Your task to perform on an android device: turn on translation in the chrome app Image 0: 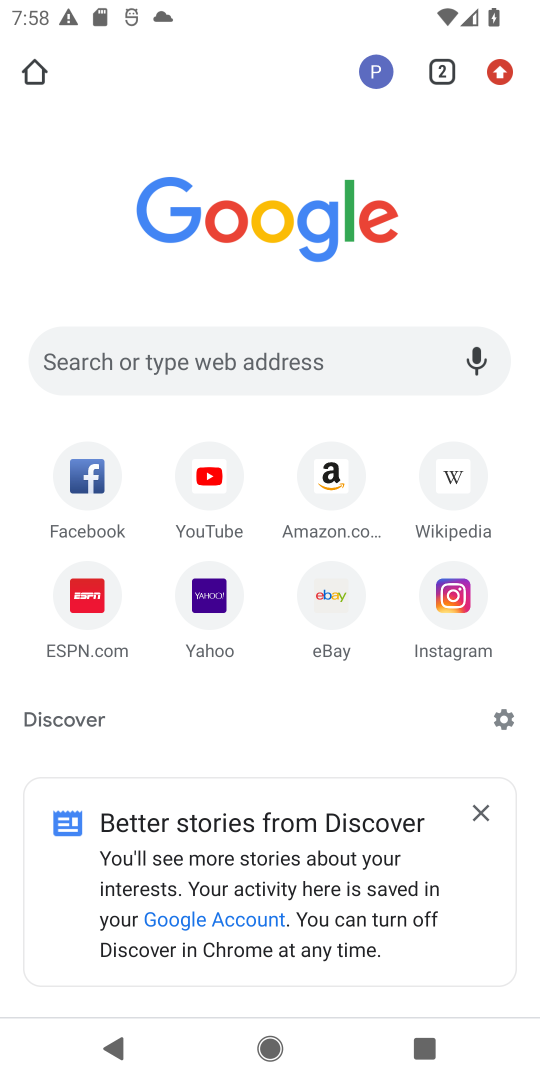
Step 0: click (499, 68)
Your task to perform on an android device: turn on translation in the chrome app Image 1: 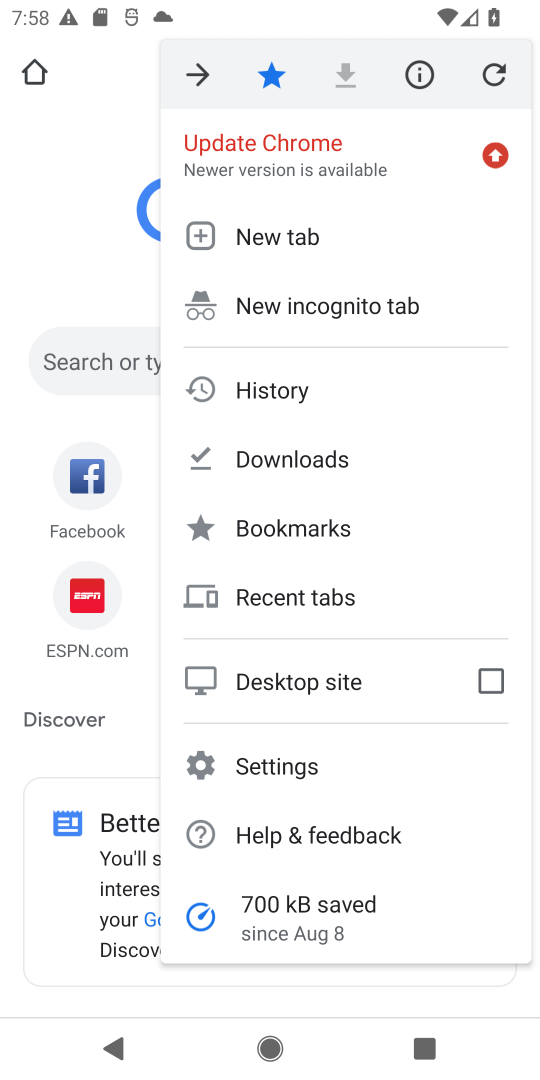
Step 1: click (295, 764)
Your task to perform on an android device: turn on translation in the chrome app Image 2: 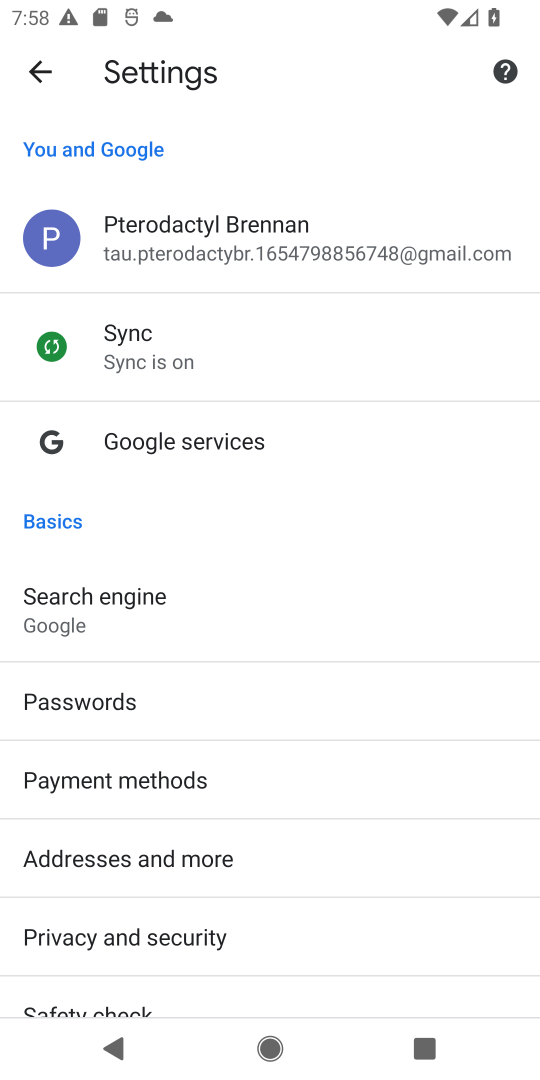
Step 2: drag from (305, 837) to (341, 235)
Your task to perform on an android device: turn on translation in the chrome app Image 3: 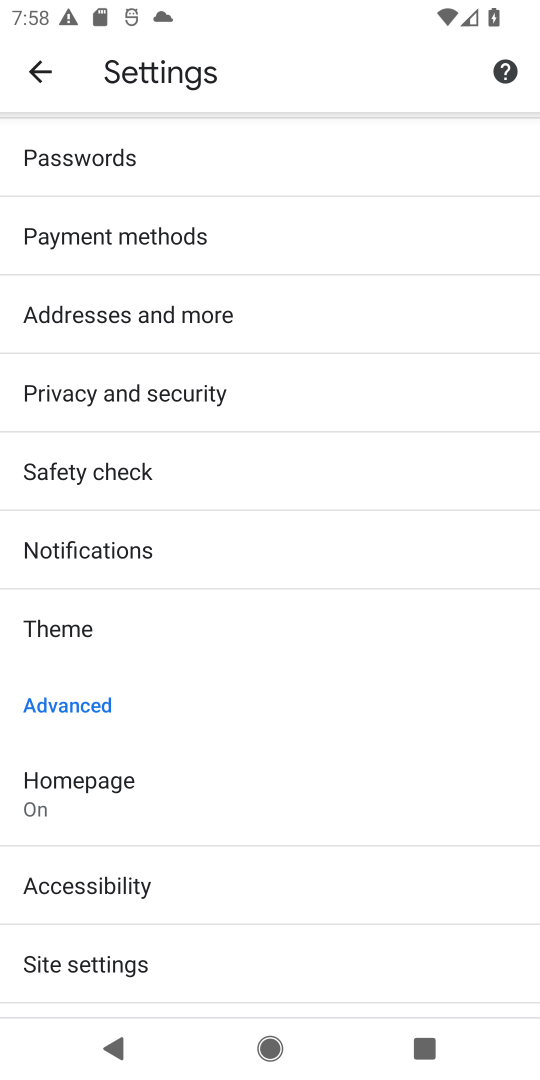
Step 3: drag from (268, 735) to (295, 228)
Your task to perform on an android device: turn on translation in the chrome app Image 4: 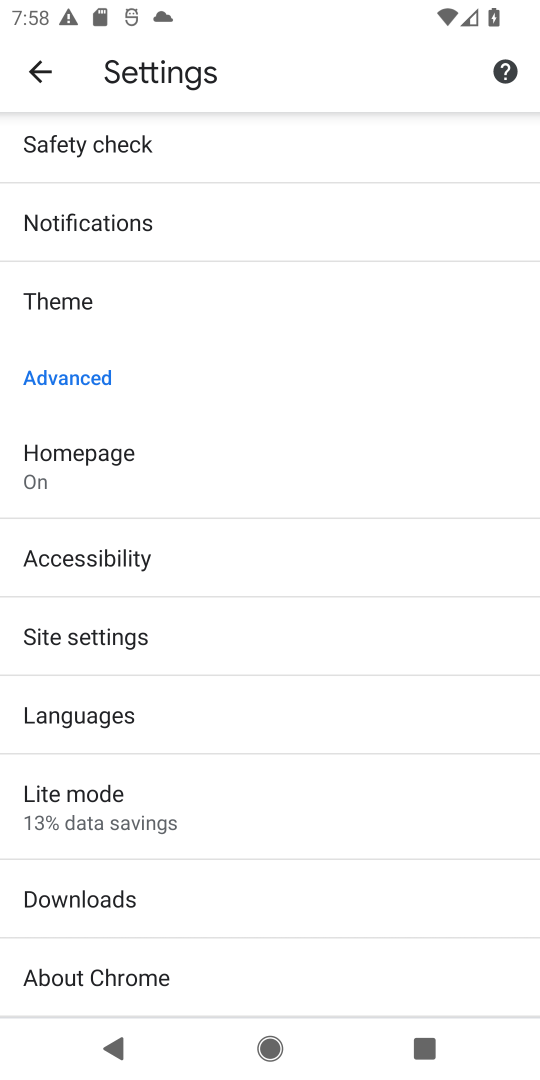
Step 4: click (300, 709)
Your task to perform on an android device: turn on translation in the chrome app Image 5: 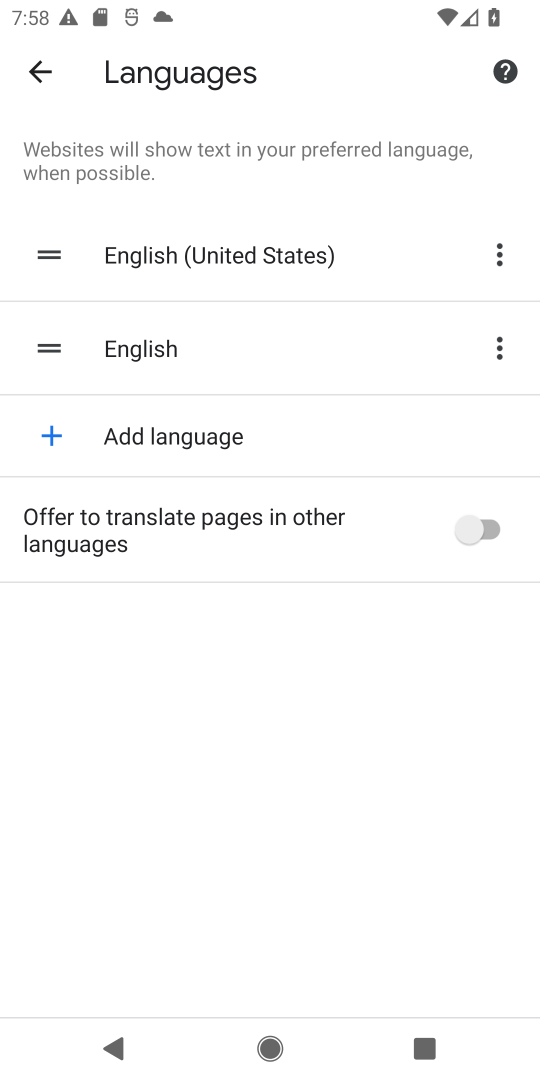
Step 5: click (484, 520)
Your task to perform on an android device: turn on translation in the chrome app Image 6: 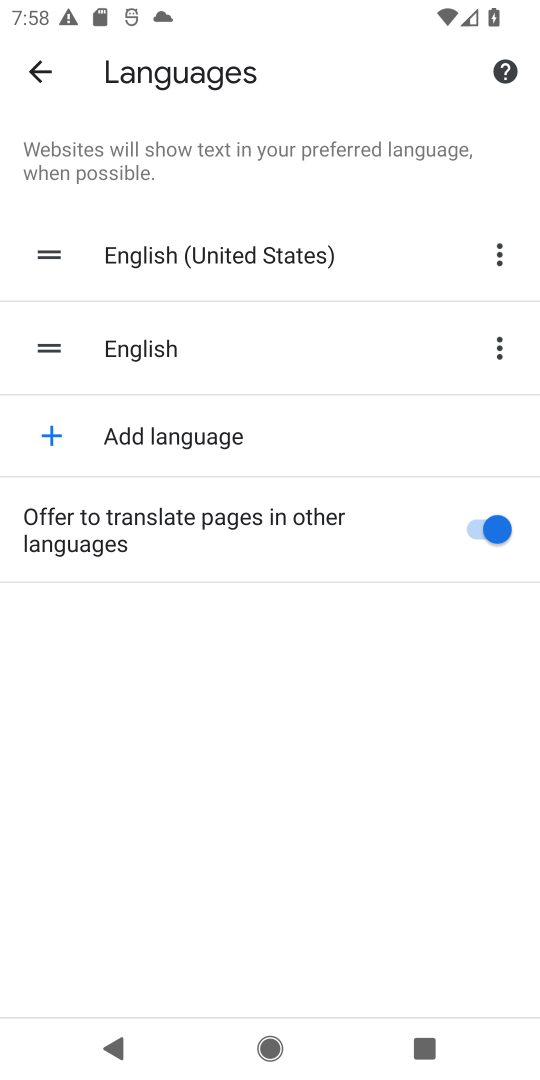
Step 6: task complete